Your task to perform on an android device: change keyboard looks Image 0: 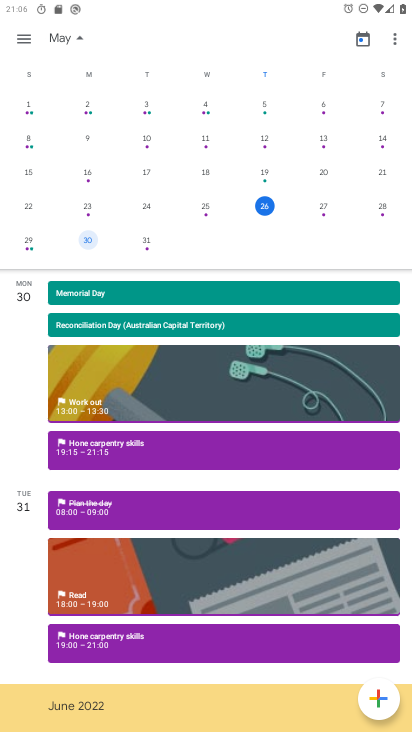
Step 0: drag from (235, 519) to (234, 21)
Your task to perform on an android device: change keyboard looks Image 1: 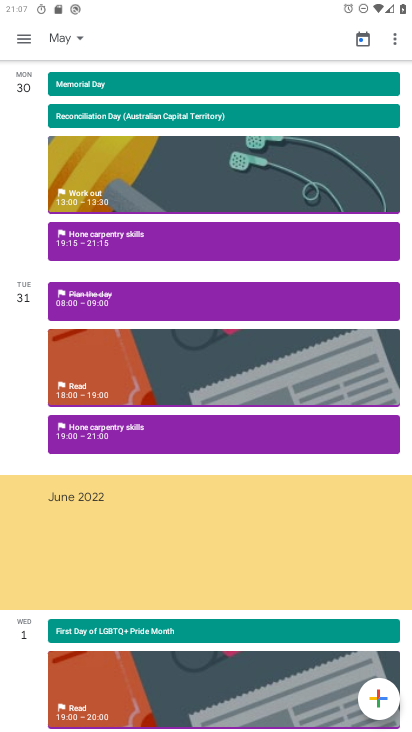
Step 1: press home button
Your task to perform on an android device: change keyboard looks Image 2: 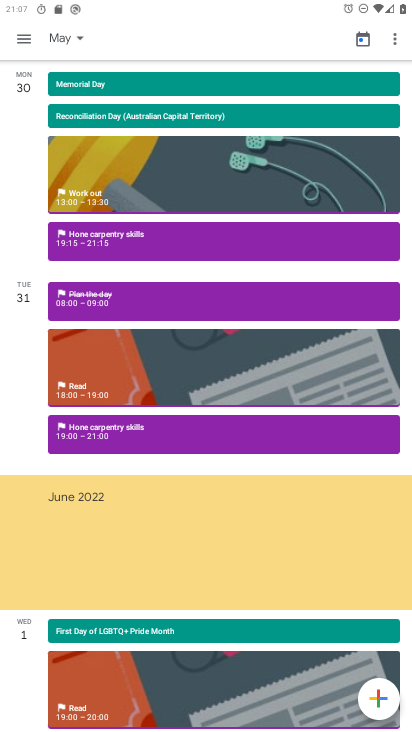
Step 2: drag from (142, 596) to (214, 25)
Your task to perform on an android device: change keyboard looks Image 3: 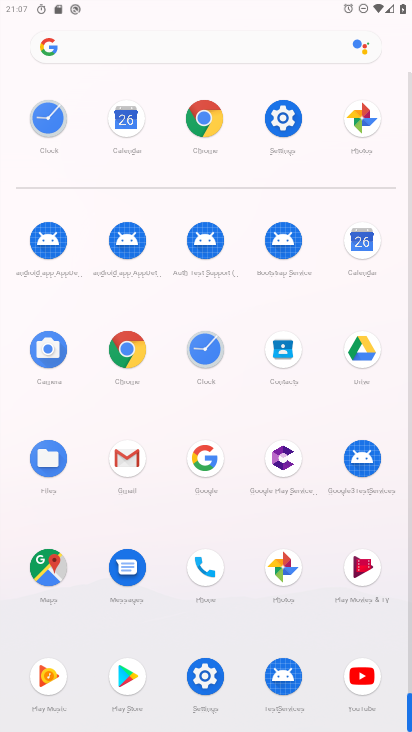
Step 3: click (280, 126)
Your task to perform on an android device: change keyboard looks Image 4: 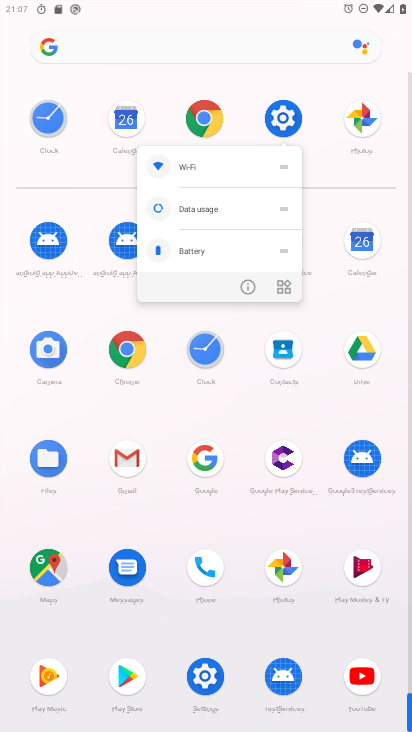
Step 4: click (251, 284)
Your task to perform on an android device: change keyboard looks Image 5: 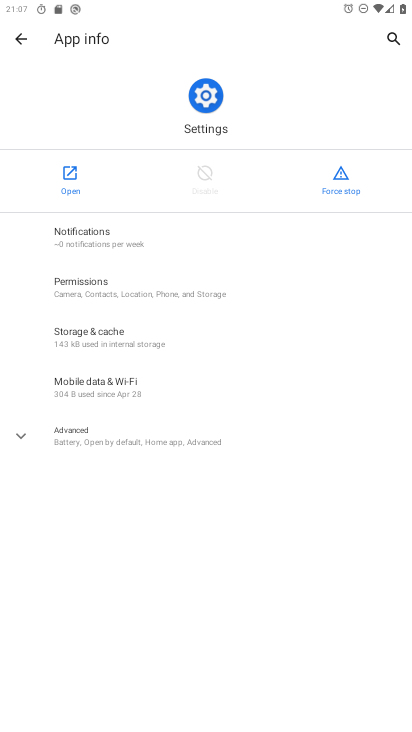
Step 5: click (70, 161)
Your task to perform on an android device: change keyboard looks Image 6: 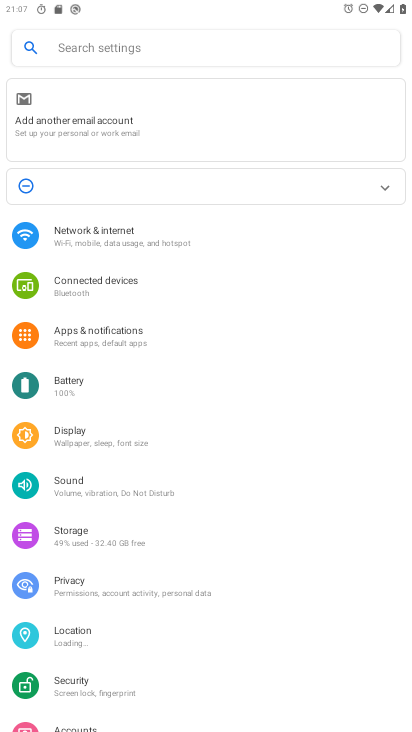
Step 6: drag from (186, 468) to (235, 155)
Your task to perform on an android device: change keyboard looks Image 7: 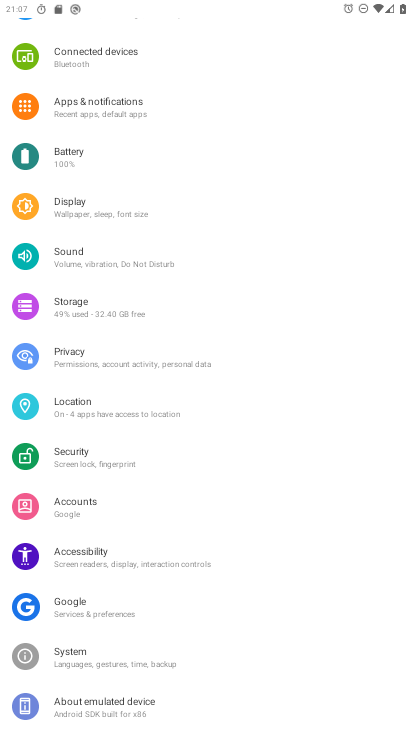
Step 7: click (80, 654)
Your task to perform on an android device: change keyboard looks Image 8: 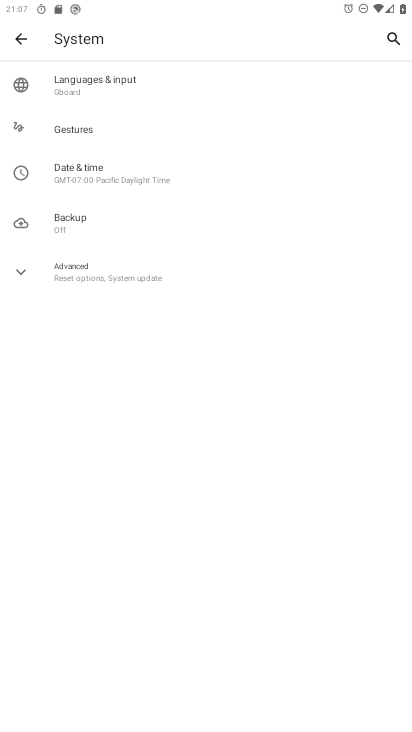
Step 8: click (146, 97)
Your task to perform on an android device: change keyboard looks Image 9: 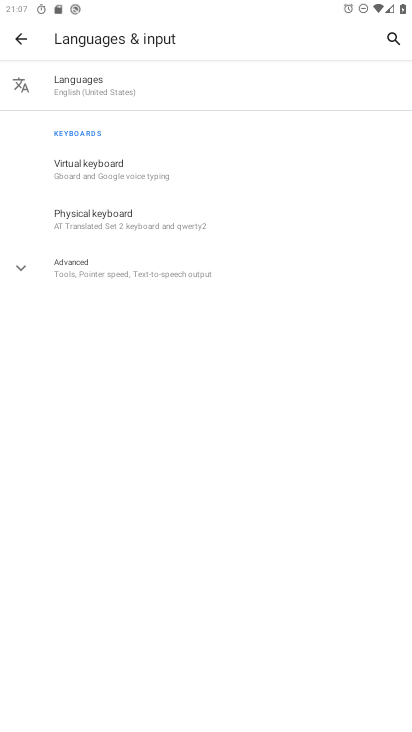
Step 9: click (114, 173)
Your task to perform on an android device: change keyboard looks Image 10: 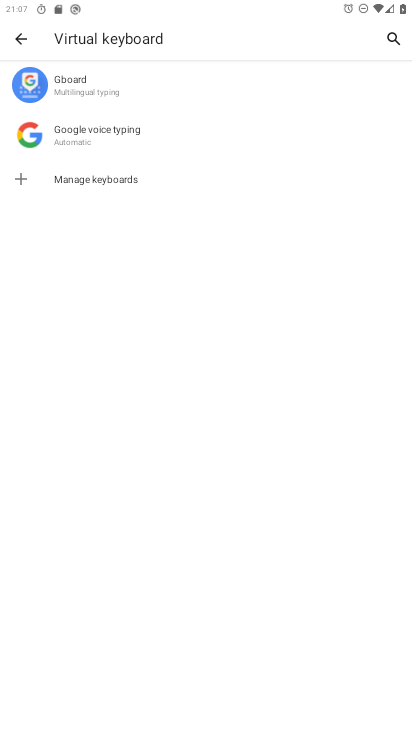
Step 10: click (150, 84)
Your task to perform on an android device: change keyboard looks Image 11: 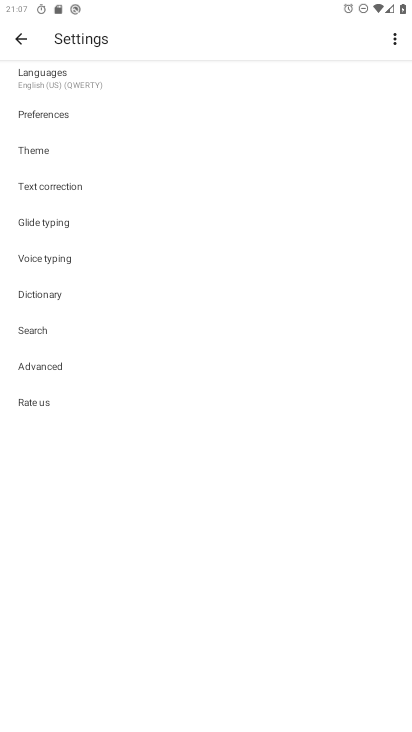
Step 11: click (92, 150)
Your task to perform on an android device: change keyboard looks Image 12: 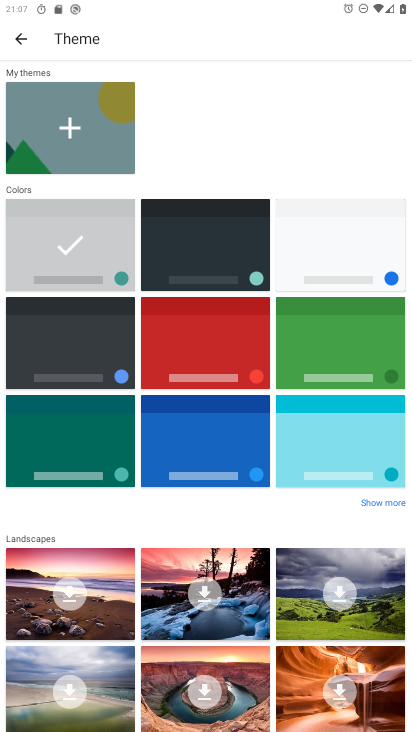
Step 12: drag from (217, 530) to (211, 184)
Your task to perform on an android device: change keyboard looks Image 13: 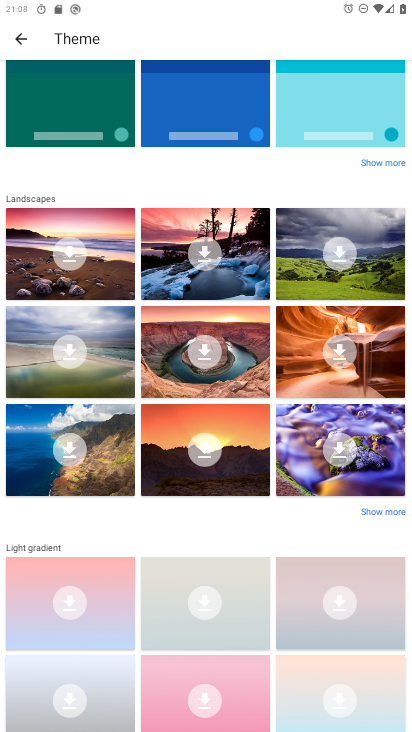
Step 13: drag from (234, 535) to (286, 163)
Your task to perform on an android device: change keyboard looks Image 14: 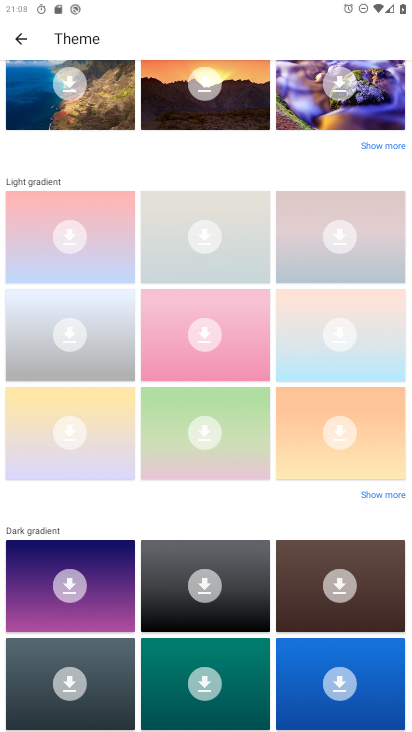
Step 14: drag from (191, 150) to (179, 729)
Your task to perform on an android device: change keyboard looks Image 15: 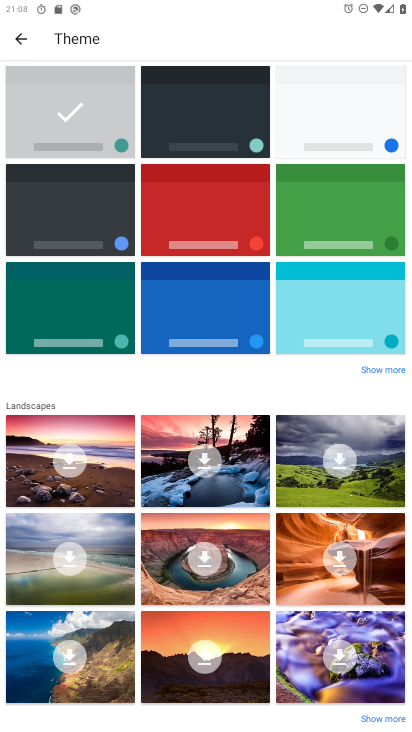
Step 15: click (206, 129)
Your task to perform on an android device: change keyboard looks Image 16: 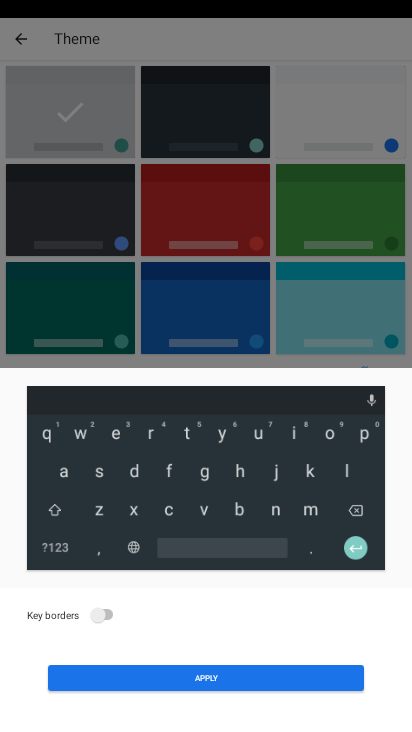
Step 16: click (174, 679)
Your task to perform on an android device: change keyboard looks Image 17: 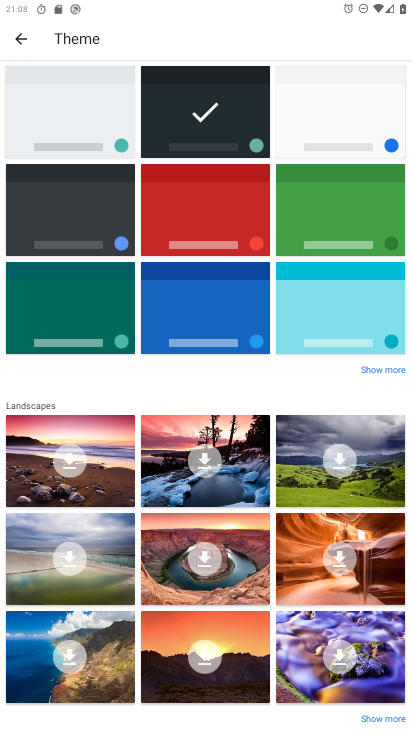
Step 17: drag from (233, 370) to (331, 55)
Your task to perform on an android device: change keyboard looks Image 18: 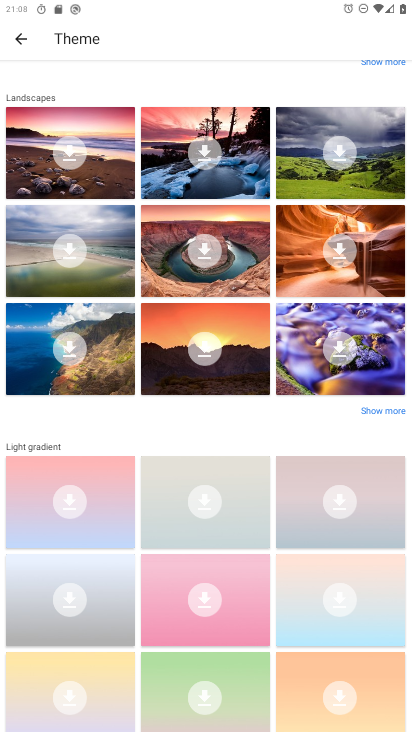
Step 18: drag from (191, 413) to (309, 11)
Your task to perform on an android device: change keyboard looks Image 19: 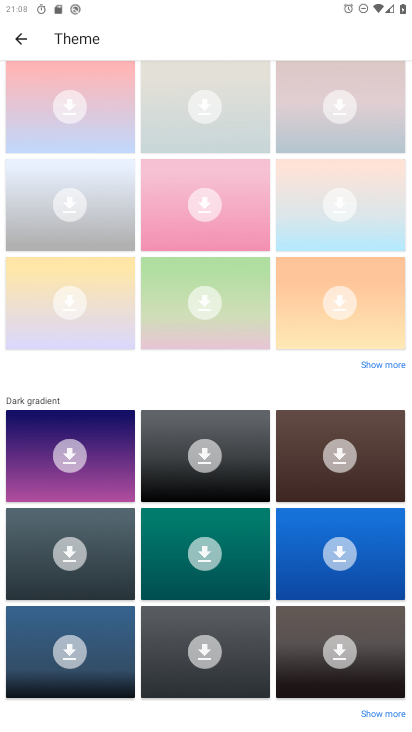
Step 19: drag from (207, 356) to (285, 17)
Your task to perform on an android device: change keyboard looks Image 20: 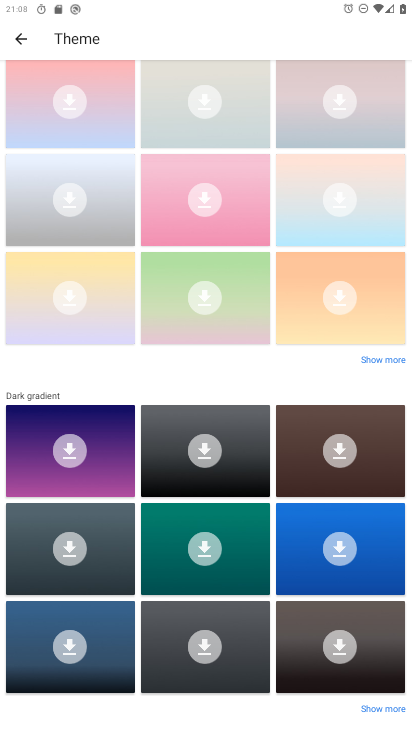
Step 20: drag from (205, 329) to (238, 90)
Your task to perform on an android device: change keyboard looks Image 21: 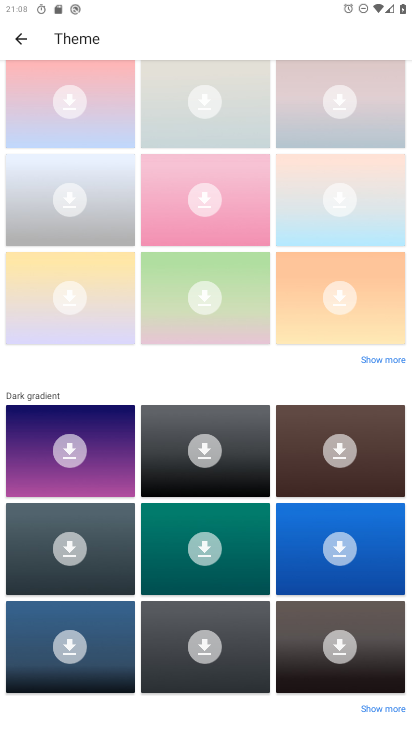
Step 21: drag from (197, 370) to (223, 100)
Your task to perform on an android device: change keyboard looks Image 22: 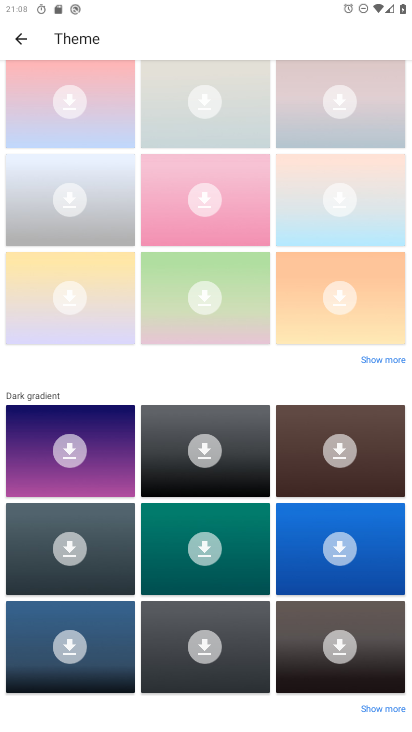
Step 22: drag from (211, 379) to (214, 125)
Your task to perform on an android device: change keyboard looks Image 23: 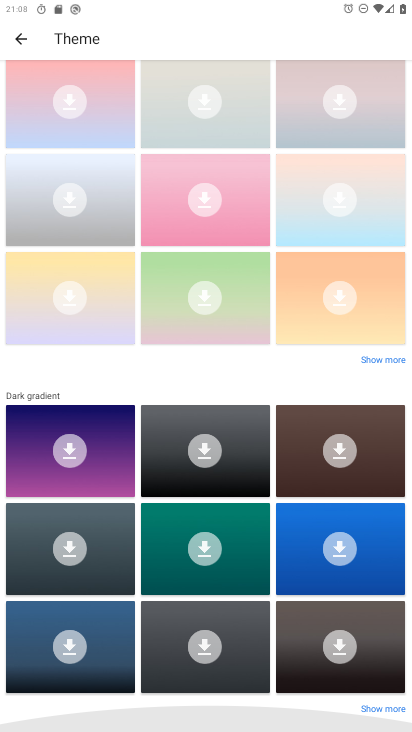
Step 23: drag from (214, 101) to (219, 689)
Your task to perform on an android device: change keyboard looks Image 24: 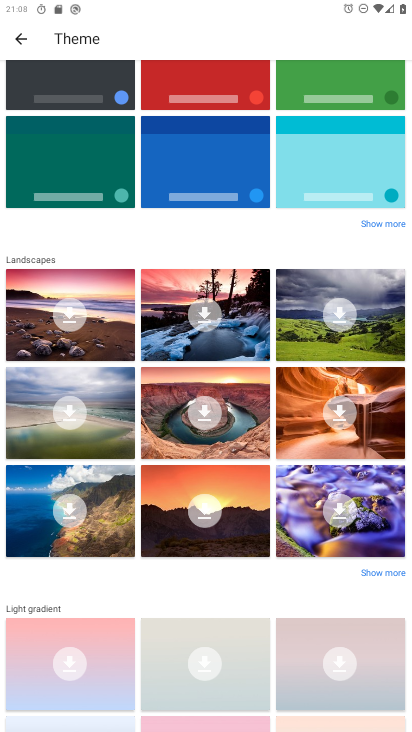
Step 24: drag from (193, 241) to (246, 716)
Your task to perform on an android device: change keyboard looks Image 25: 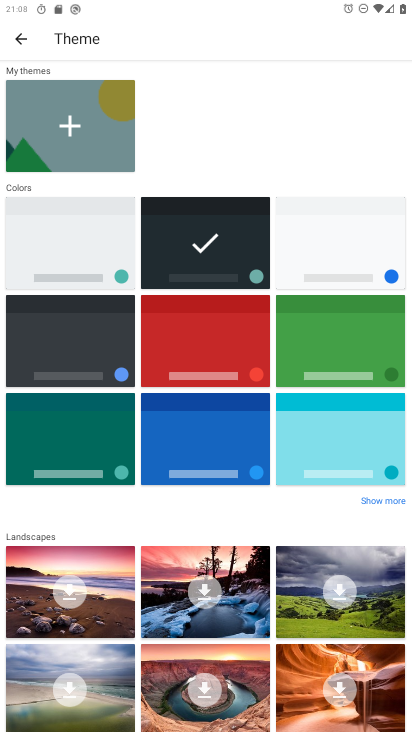
Step 25: drag from (188, 111) to (239, 591)
Your task to perform on an android device: change keyboard looks Image 26: 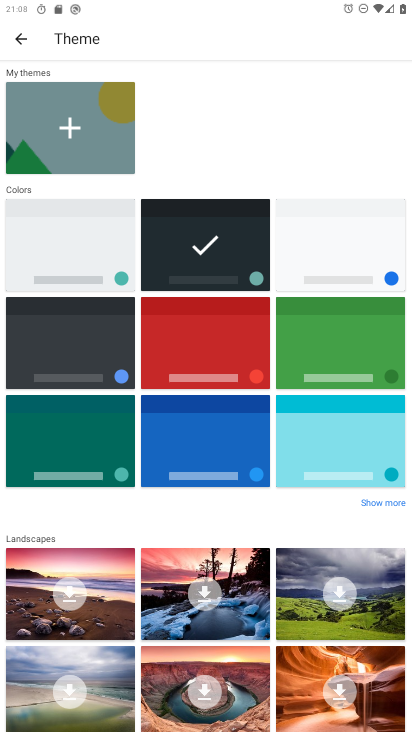
Step 26: drag from (186, 502) to (237, 239)
Your task to perform on an android device: change keyboard looks Image 27: 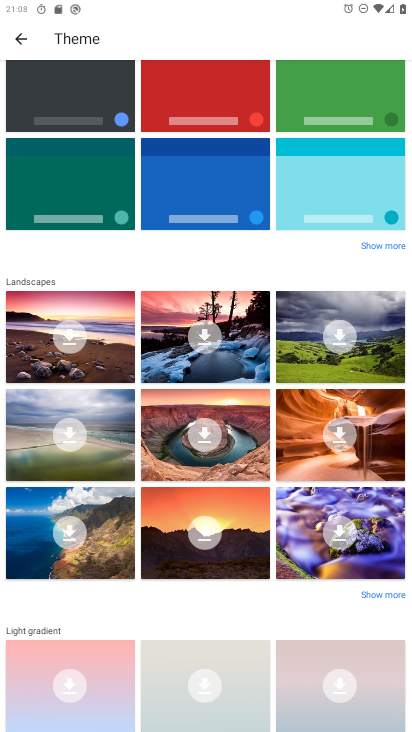
Step 27: drag from (228, 174) to (264, 722)
Your task to perform on an android device: change keyboard looks Image 28: 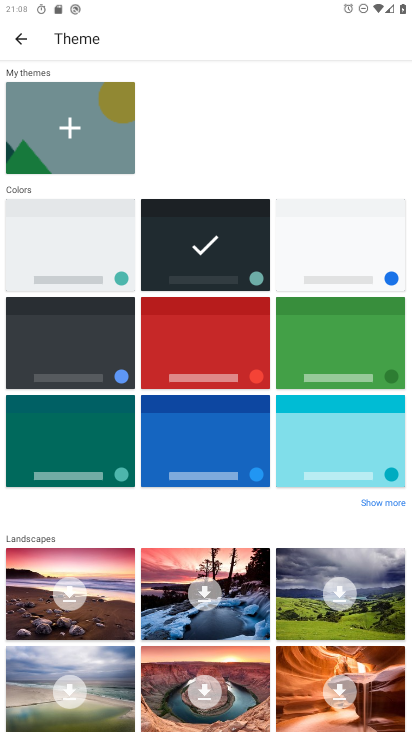
Step 28: drag from (173, 526) to (244, 728)
Your task to perform on an android device: change keyboard looks Image 29: 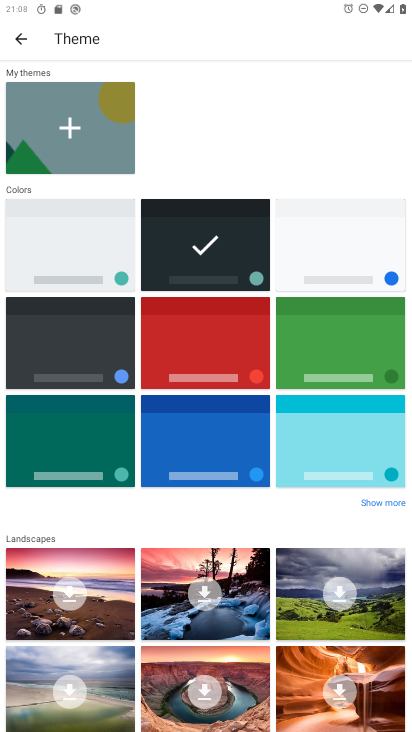
Step 29: drag from (175, 502) to (251, 731)
Your task to perform on an android device: change keyboard looks Image 30: 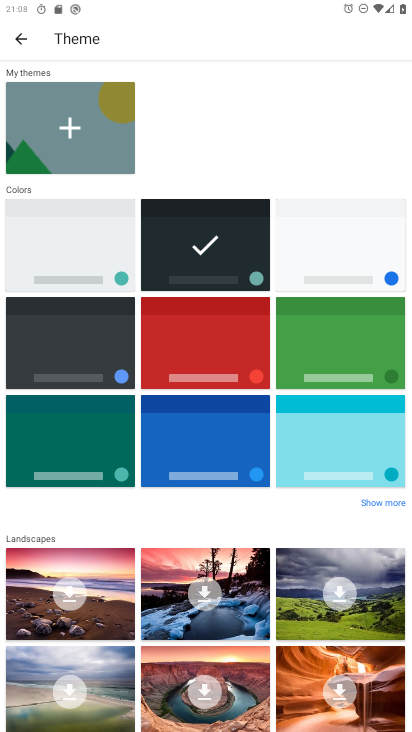
Step 30: drag from (149, 527) to (262, 730)
Your task to perform on an android device: change keyboard looks Image 31: 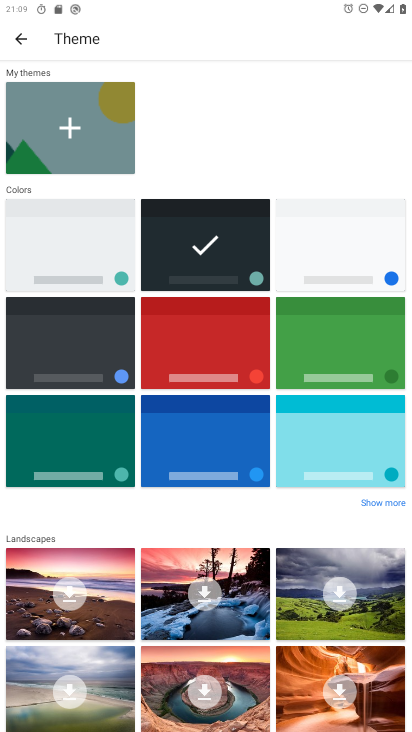
Step 31: click (224, 332)
Your task to perform on an android device: change keyboard looks Image 32: 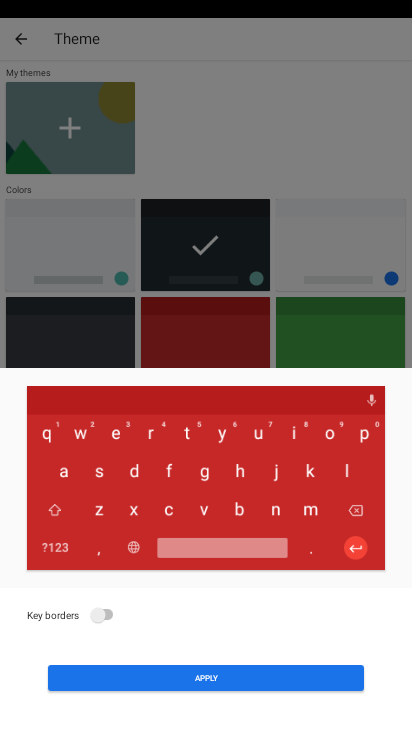
Step 32: click (185, 682)
Your task to perform on an android device: change keyboard looks Image 33: 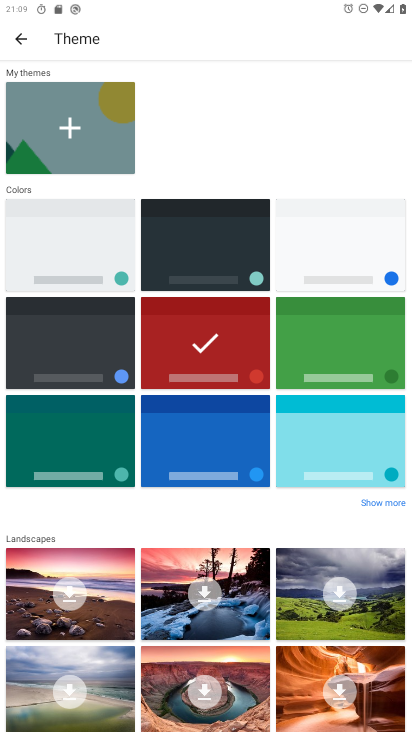
Step 33: task complete